Your task to perform on an android device: toggle airplane mode Image 0: 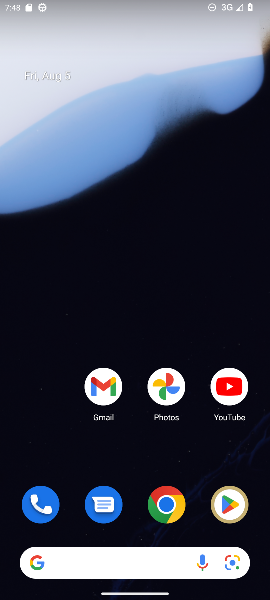
Step 0: drag from (131, 566) to (135, 212)
Your task to perform on an android device: toggle airplane mode Image 1: 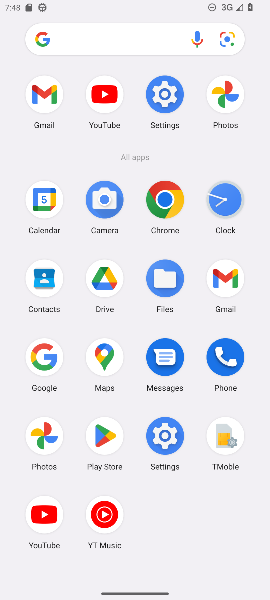
Step 1: click (163, 99)
Your task to perform on an android device: toggle airplane mode Image 2: 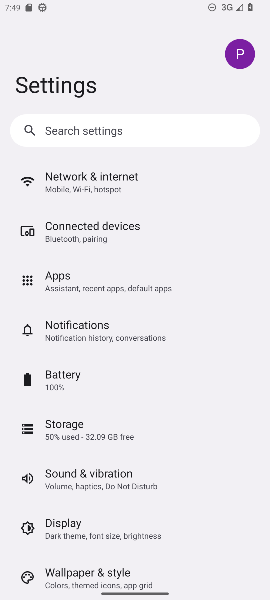
Step 2: click (90, 191)
Your task to perform on an android device: toggle airplane mode Image 3: 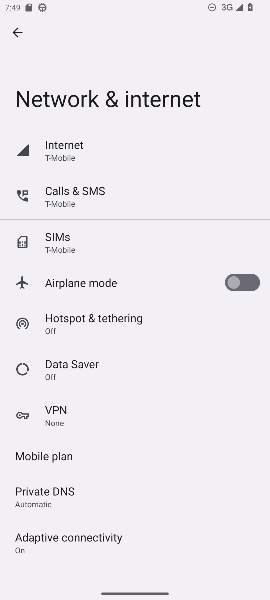
Step 3: click (239, 285)
Your task to perform on an android device: toggle airplane mode Image 4: 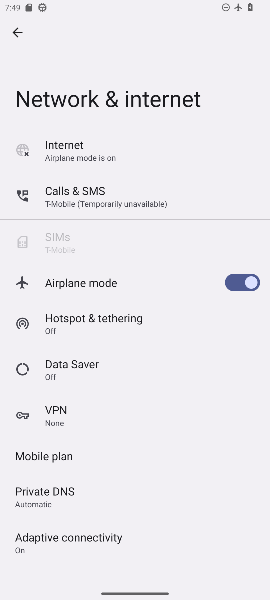
Step 4: task complete